Your task to perform on an android device: check google app version Image 0: 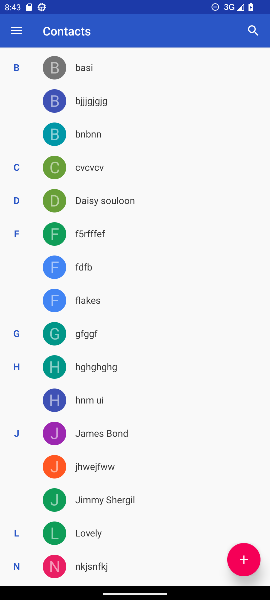
Step 0: press home button
Your task to perform on an android device: check google app version Image 1: 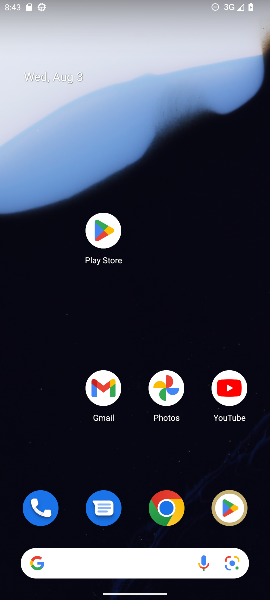
Step 1: drag from (138, 527) to (86, 0)
Your task to perform on an android device: check google app version Image 2: 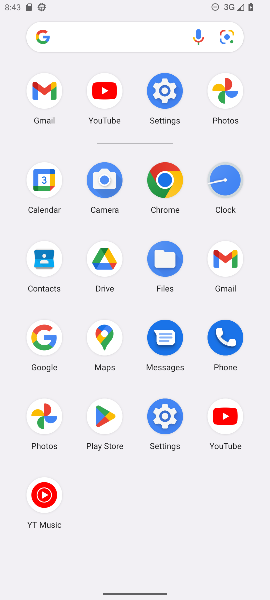
Step 2: click (49, 340)
Your task to perform on an android device: check google app version Image 3: 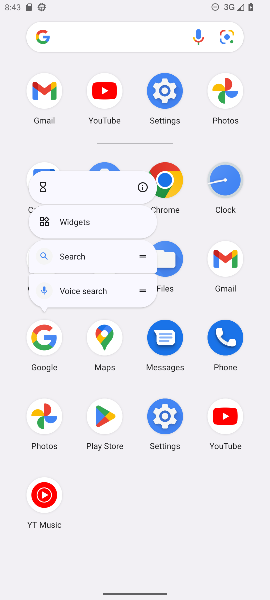
Step 3: click (142, 184)
Your task to perform on an android device: check google app version Image 4: 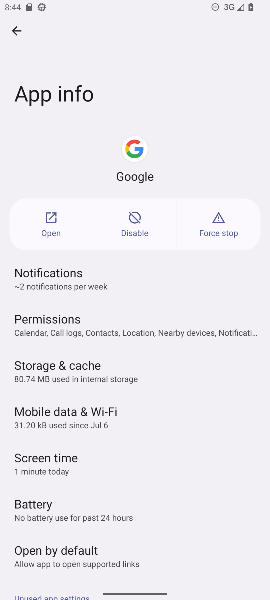
Step 4: task complete